Your task to perform on an android device: Open the map Image 0: 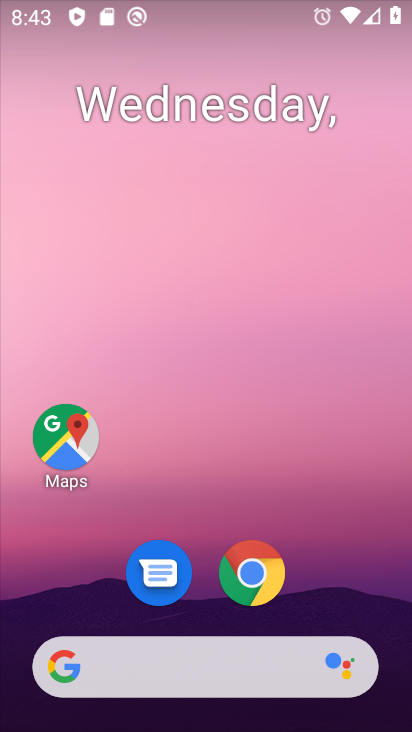
Step 0: drag from (249, 618) to (212, 35)
Your task to perform on an android device: Open the map Image 1: 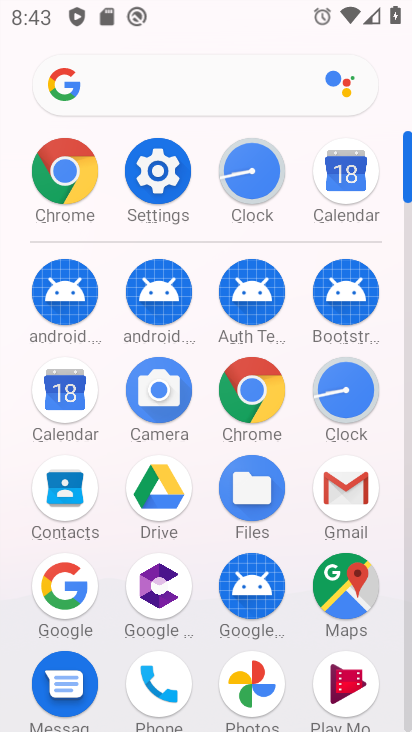
Step 1: drag from (257, 481) to (264, 179)
Your task to perform on an android device: Open the map Image 2: 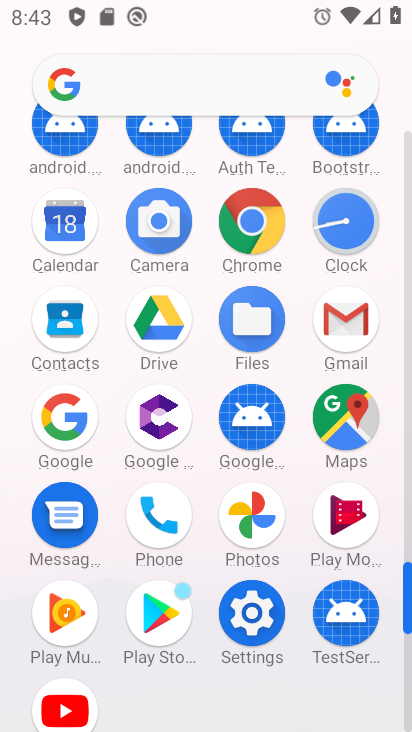
Step 2: click (352, 440)
Your task to perform on an android device: Open the map Image 3: 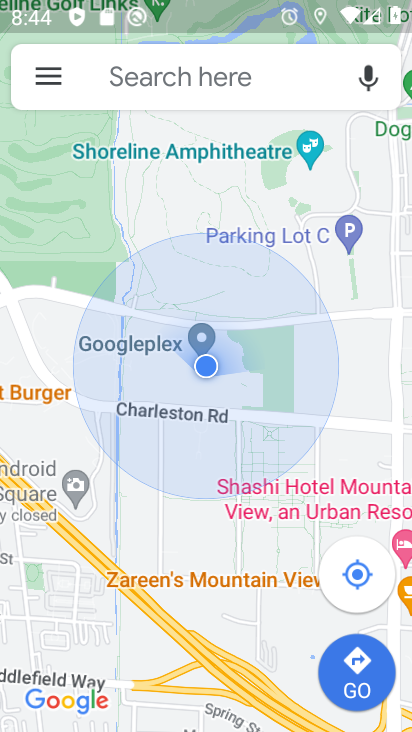
Step 3: task complete